Your task to perform on an android device: visit the assistant section in the google photos Image 0: 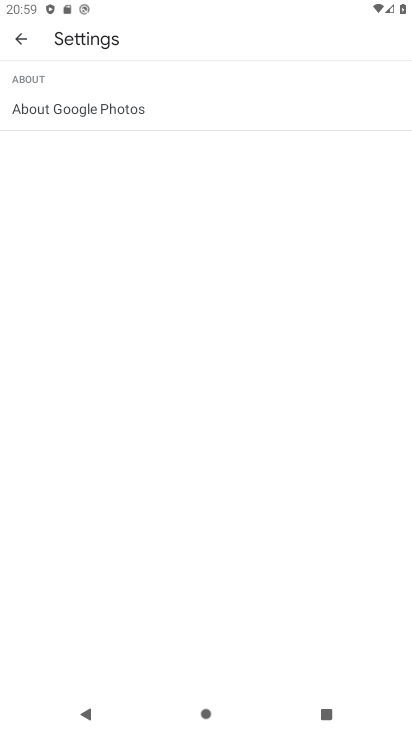
Step 0: press back button
Your task to perform on an android device: visit the assistant section in the google photos Image 1: 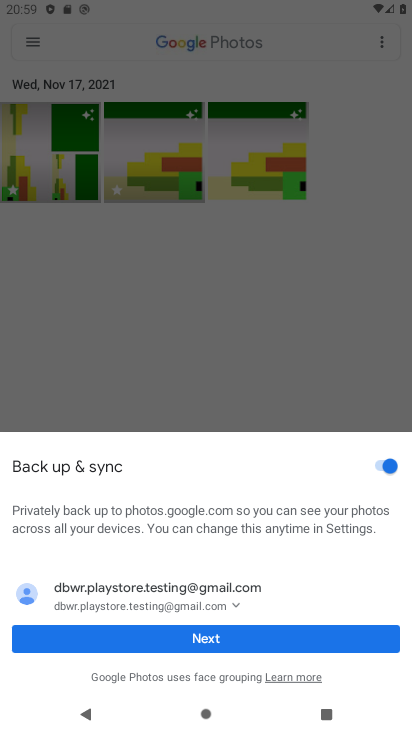
Step 1: click (206, 639)
Your task to perform on an android device: visit the assistant section in the google photos Image 2: 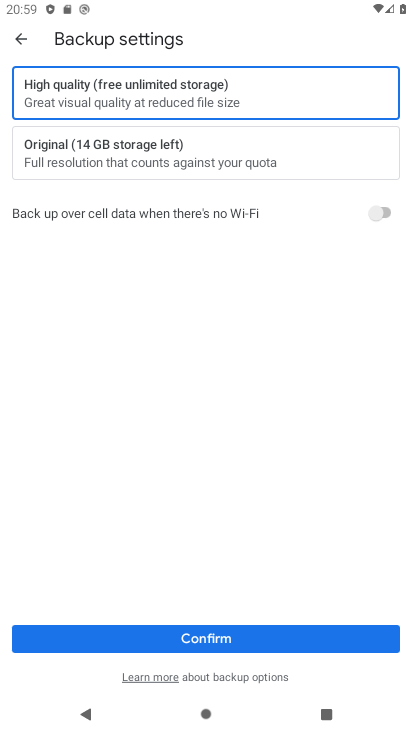
Step 2: click (322, 638)
Your task to perform on an android device: visit the assistant section in the google photos Image 3: 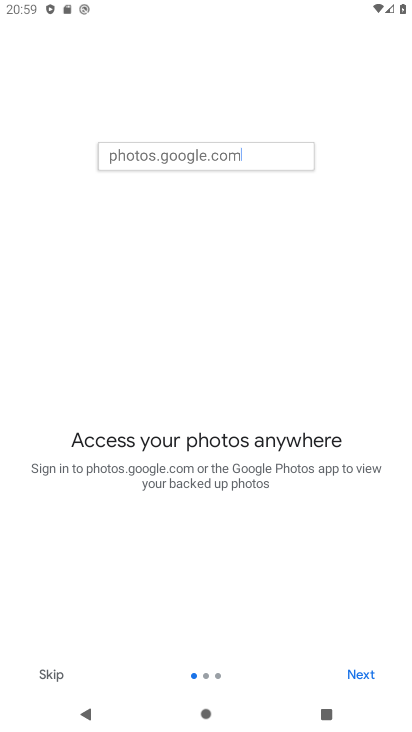
Step 3: click (367, 676)
Your task to perform on an android device: visit the assistant section in the google photos Image 4: 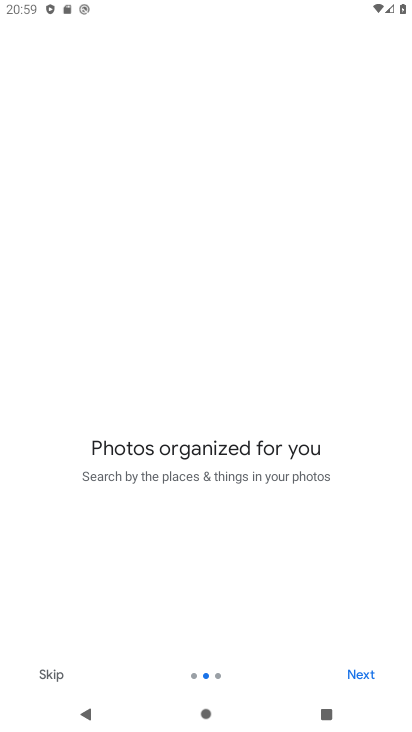
Step 4: click (367, 676)
Your task to perform on an android device: visit the assistant section in the google photos Image 5: 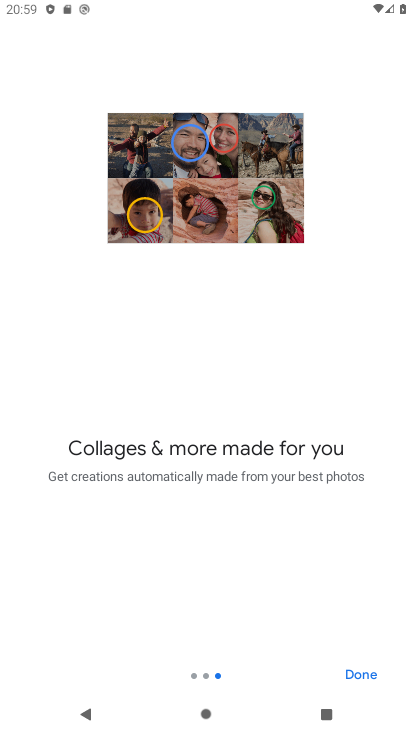
Step 5: click (367, 676)
Your task to perform on an android device: visit the assistant section in the google photos Image 6: 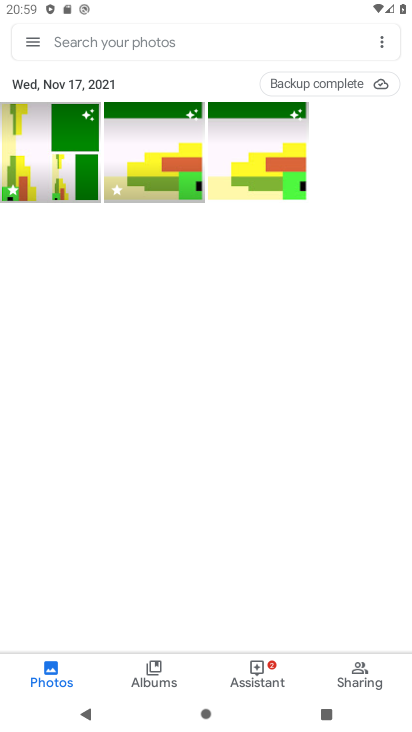
Step 6: click (275, 673)
Your task to perform on an android device: visit the assistant section in the google photos Image 7: 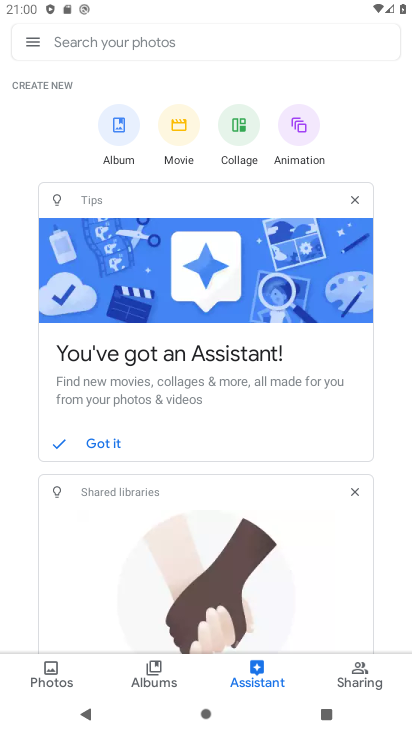
Step 7: task complete